Your task to perform on an android device: turn off notifications in google photos Image 0: 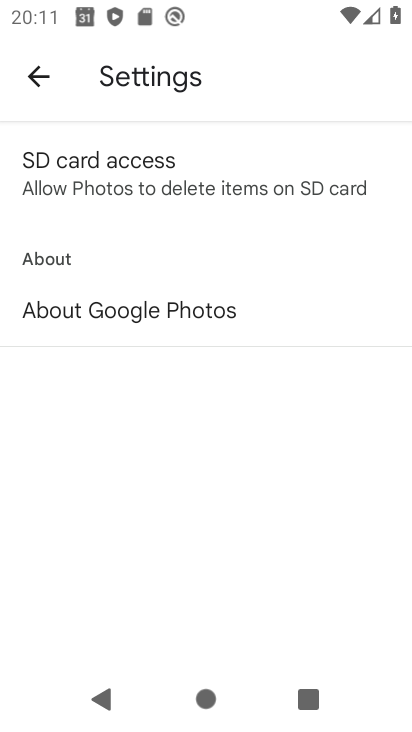
Step 0: press home button
Your task to perform on an android device: turn off notifications in google photos Image 1: 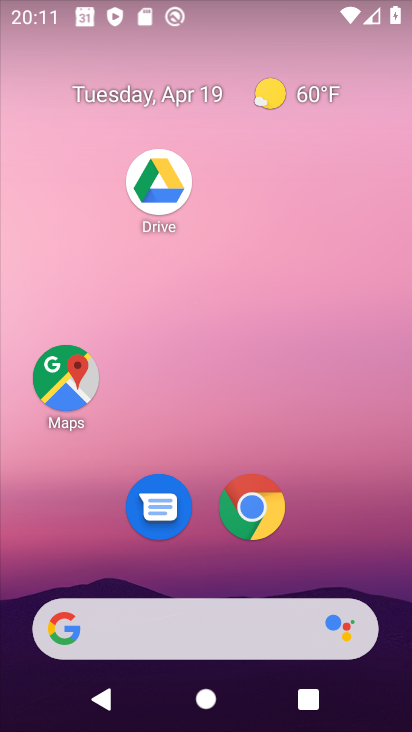
Step 1: drag from (361, 517) to (339, 91)
Your task to perform on an android device: turn off notifications in google photos Image 2: 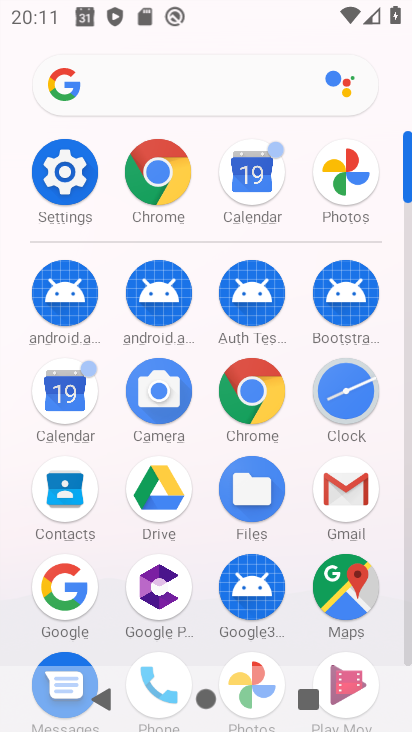
Step 2: click (344, 176)
Your task to perform on an android device: turn off notifications in google photos Image 3: 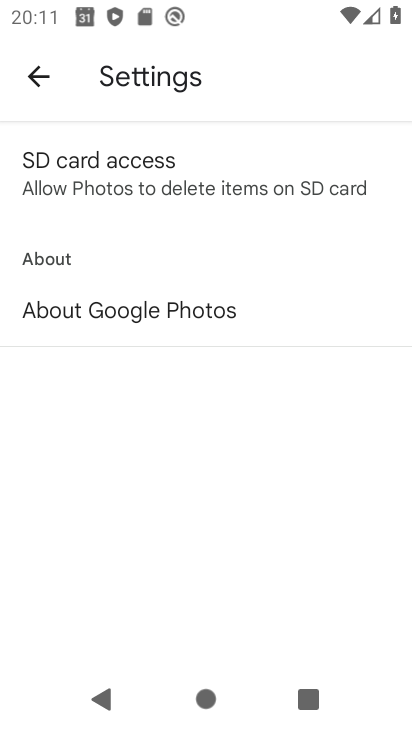
Step 3: click (38, 73)
Your task to perform on an android device: turn off notifications in google photos Image 4: 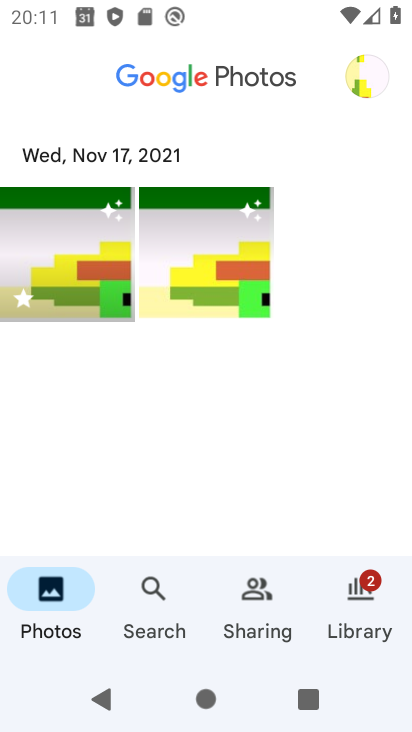
Step 4: click (368, 78)
Your task to perform on an android device: turn off notifications in google photos Image 5: 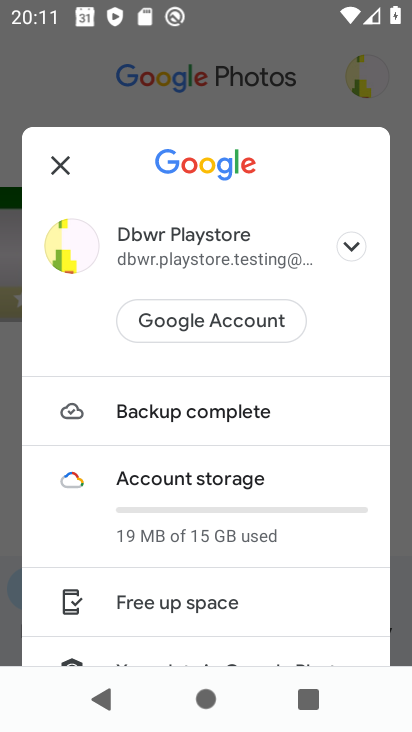
Step 5: drag from (294, 535) to (257, 270)
Your task to perform on an android device: turn off notifications in google photos Image 6: 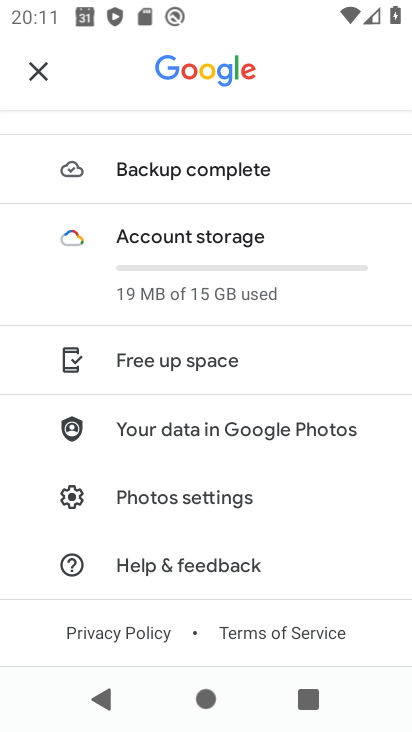
Step 6: click (244, 496)
Your task to perform on an android device: turn off notifications in google photos Image 7: 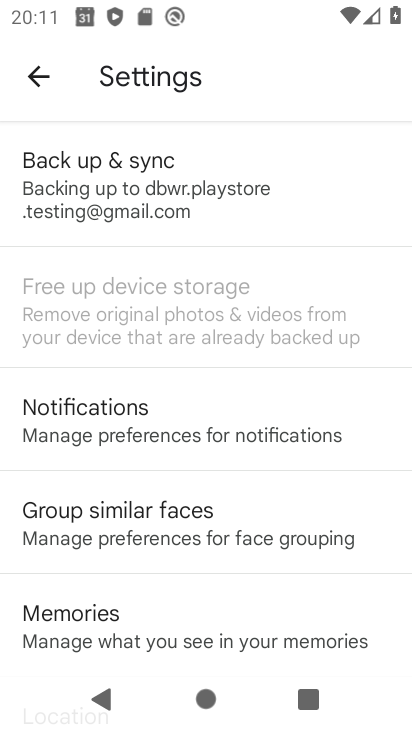
Step 7: click (239, 417)
Your task to perform on an android device: turn off notifications in google photos Image 8: 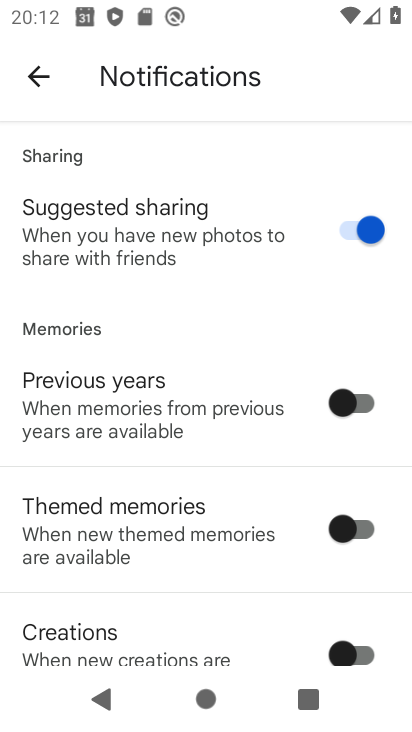
Step 8: click (351, 232)
Your task to perform on an android device: turn off notifications in google photos Image 9: 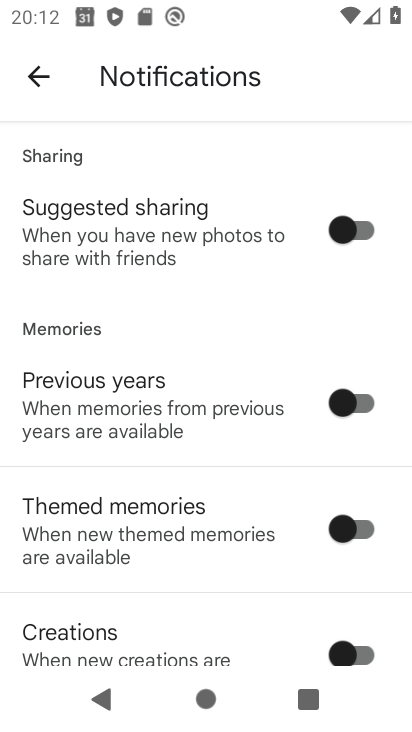
Step 9: task complete